Your task to perform on an android device: toggle data saver in the chrome app Image 0: 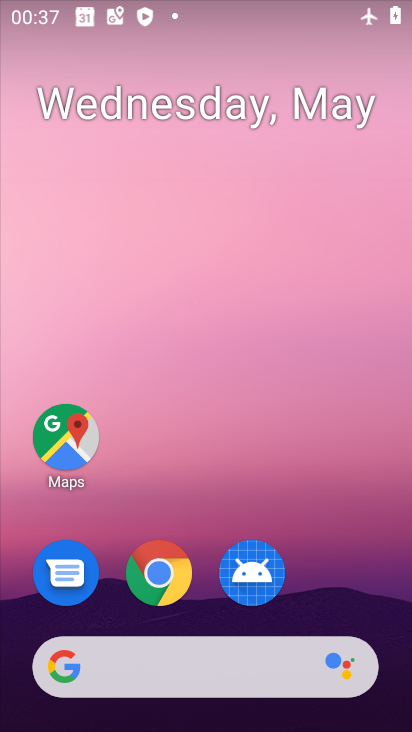
Step 0: click (158, 572)
Your task to perform on an android device: toggle data saver in the chrome app Image 1: 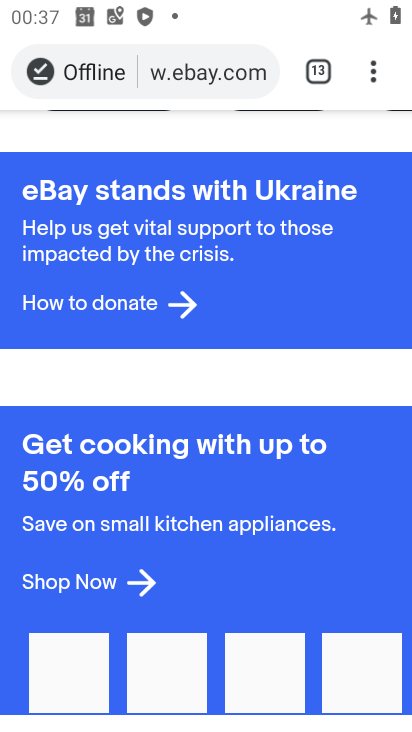
Step 1: click (366, 77)
Your task to perform on an android device: toggle data saver in the chrome app Image 2: 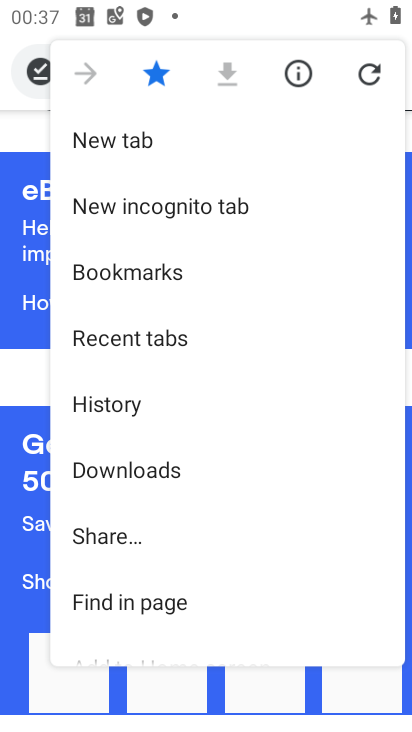
Step 2: drag from (247, 531) to (231, 153)
Your task to perform on an android device: toggle data saver in the chrome app Image 3: 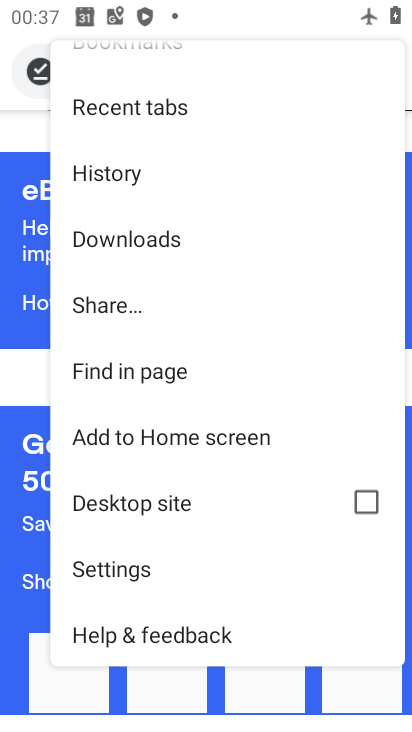
Step 3: click (114, 576)
Your task to perform on an android device: toggle data saver in the chrome app Image 4: 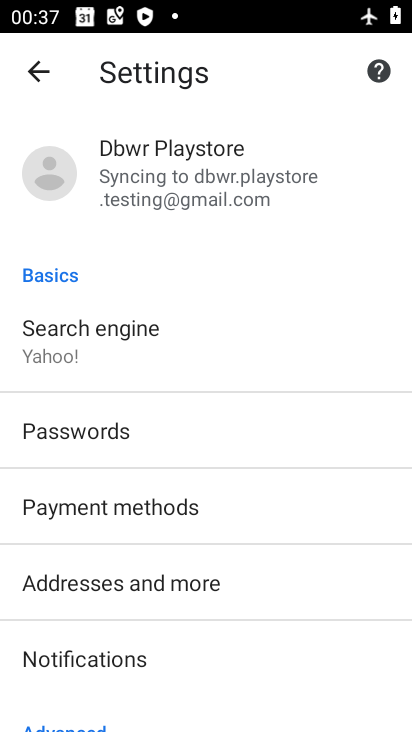
Step 4: drag from (238, 486) to (199, 89)
Your task to perform on an android device: toggle data saver in the chrome app Image 5: 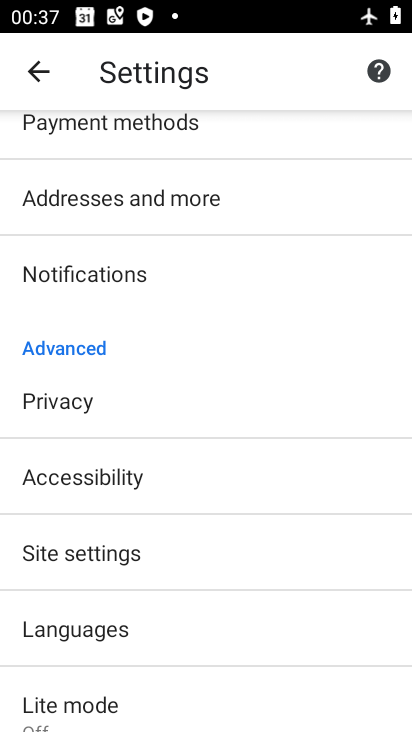
Step 5: drag from (190, 596) to (166, 286)
Your task to perform on an android device: toggle data saver in the chrome app Image 6: 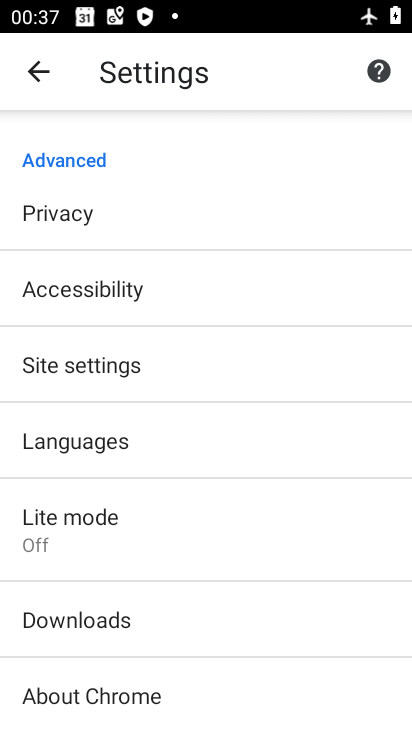
Step 6: click (76, 532)
Your task to perform on an android device: toggle data saver in the chrome app Image 7: 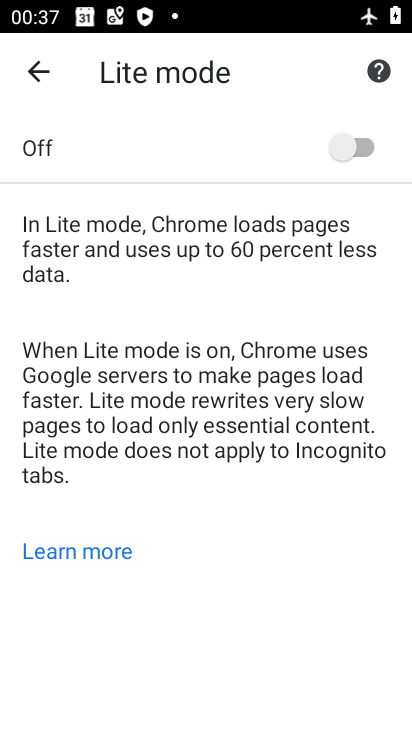
Step 7: click (341, 150)
Your task to perform on an android device: toggle data saver in the chrome app Image 8: 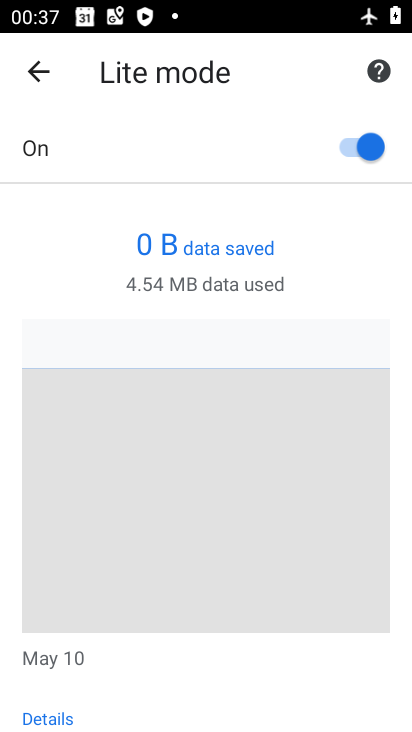
Step 8: task complete